Your task to perform on an android device: Open Youtube and go to "Your channel" Image 0: 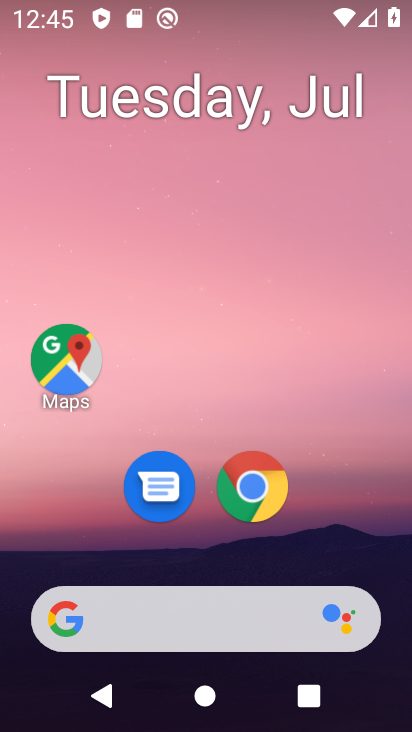
Step 0: drag from (337, 532) to (351, 64)
Your task to perform on an android device: Open Youtube and go to "Your channel" Image 1: 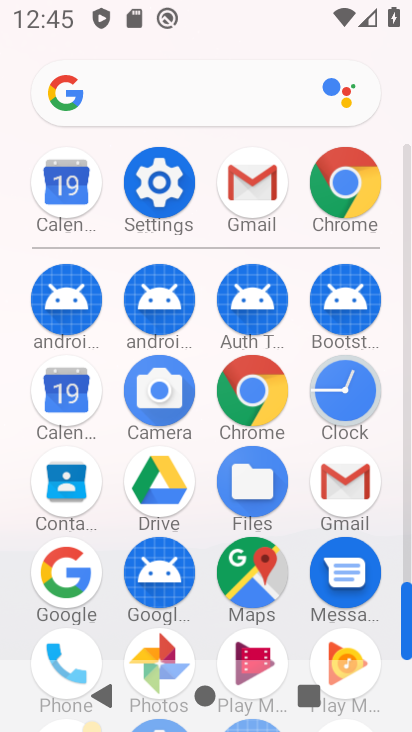
Step 1: drag from (386, 619) to (394, 304)
Your task to perform on an android device: Open Youtube and go to "Your channel" Image 2: 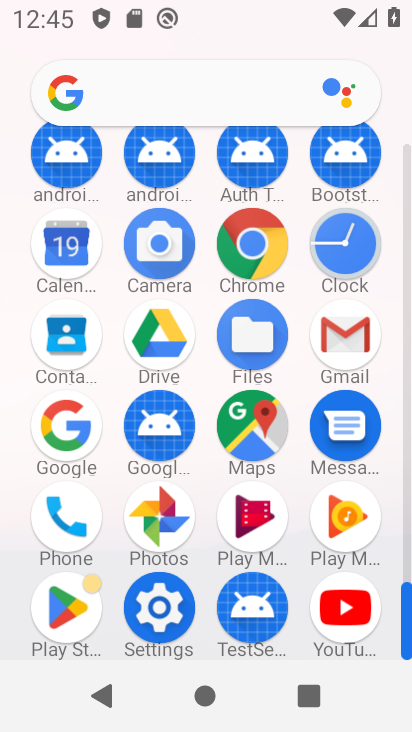
Step 2: click (341, 609)
Your task to perform on an android device: Open Youtube and go to "Your channel" Image 3: 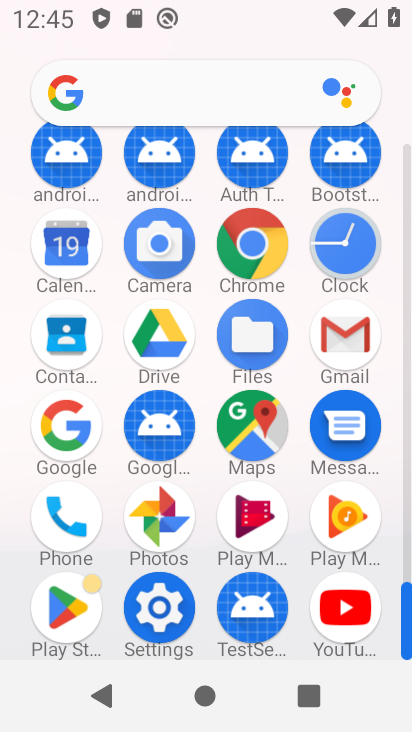
Step 3: click (338, 613)
Your task to perform on an android device: Open Youtube and go to "Your channel" Image 4: 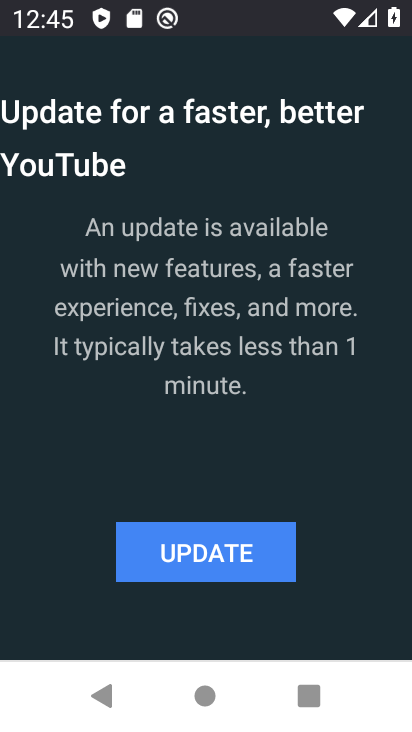
Step 4: click (248, 551)
Your task to perform on an android device: Open Youtube and go to "Your channel" Image 5: 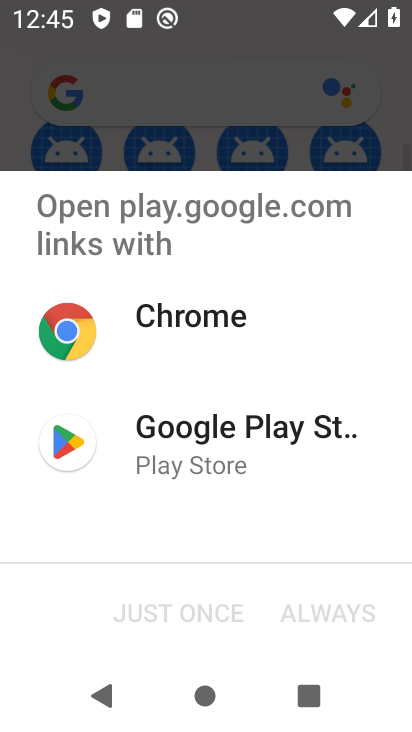
Step 5: click (176, 460)
Your task to perform on an android device: Open Youtube and go to "Your channel" Image 6: 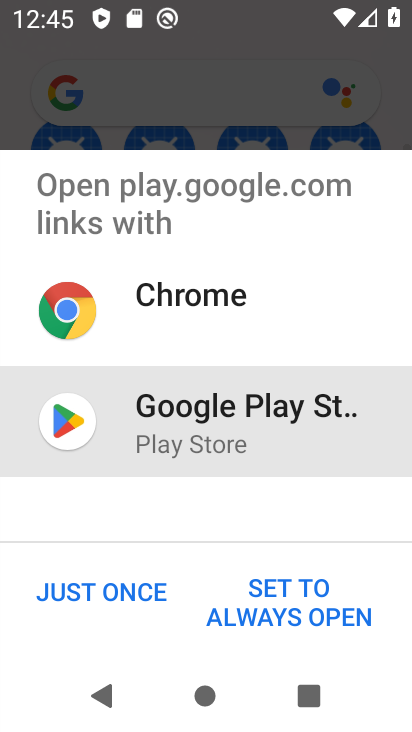
Step 6: click (114, 587)
Your task to perform on an android device: Open Youtube and go to "Your channel" Image 7: 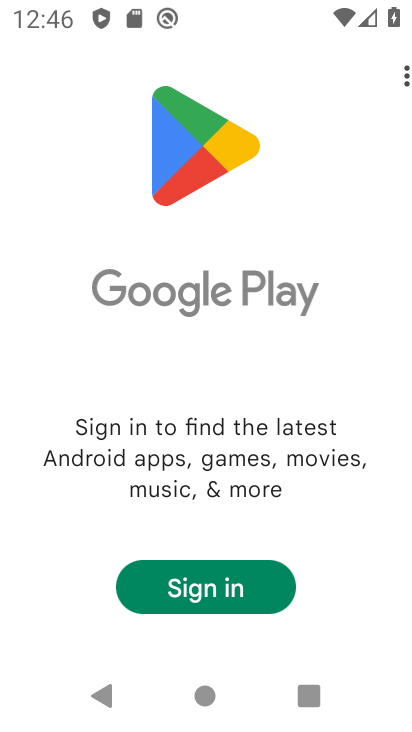
Step 7: task complete